Your task to perform on an android device: Open Wikipedia Image 0: 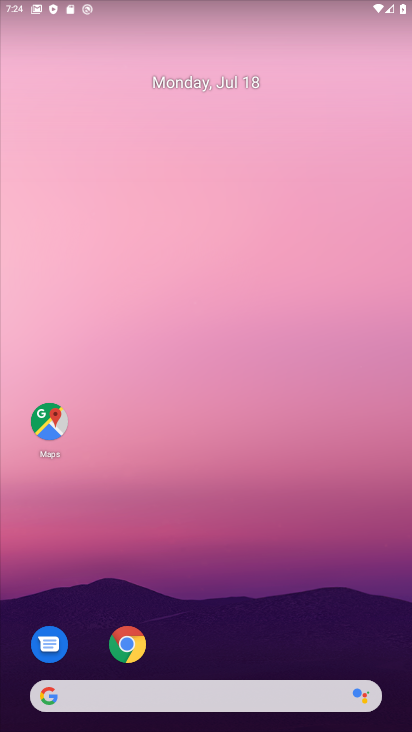
Step 0: click (126, 643)
Your task to perform on an android device: Open Wikipedia Image 1: 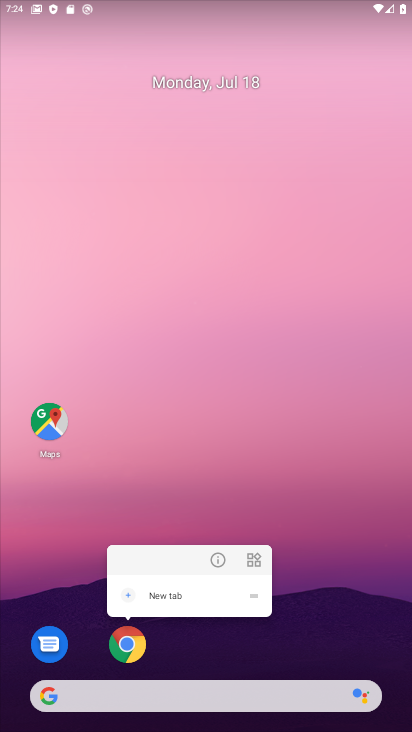
Step 1: click (128, 641)
Your task to perform on an android device: Open Wikipedia Image 2: 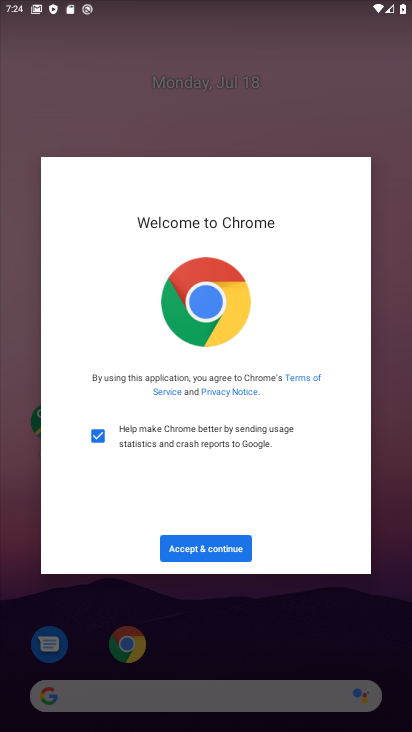
Step 2: click (202, 554)
Your task to perform on an android device: Open Wikipedia Image 3: 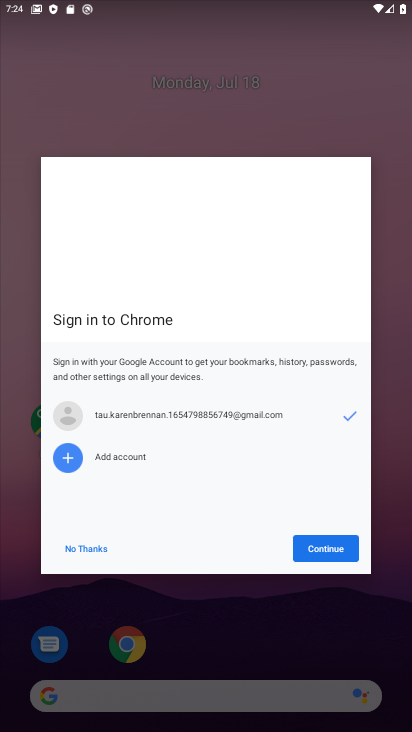
Step 3: click (324, 554)
Your task to perform on an android device: Open Wikipedia Image 4: 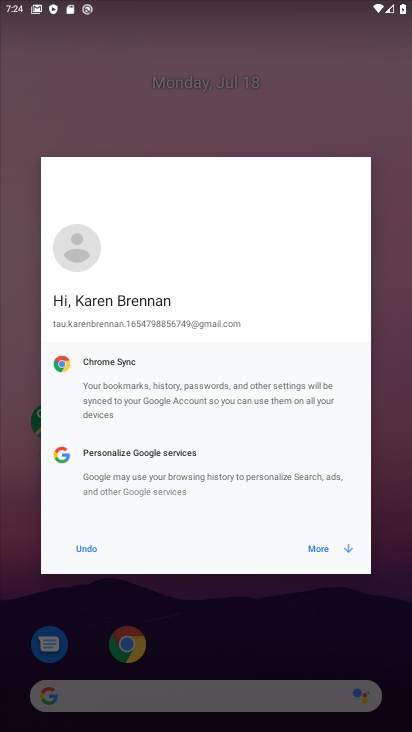
Step 4: click (328, 552)
Your task to perform on an android device: Open Wikipedia Image 5: 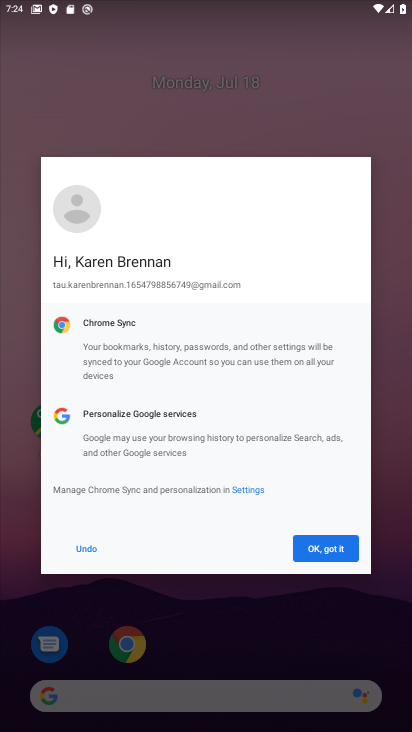
Step 5: click (329, 551)
Your task to perform on an android device: Open Wikipedia Image 6: 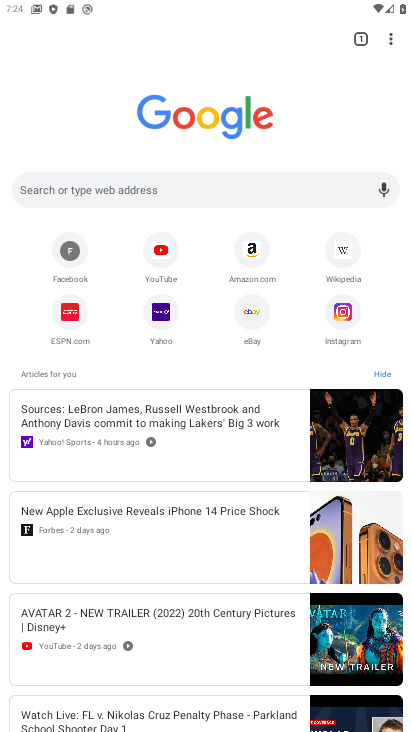
Step 6: click (352, 263)
Your task to perform on an android device: Open Wikipedia Image 7: 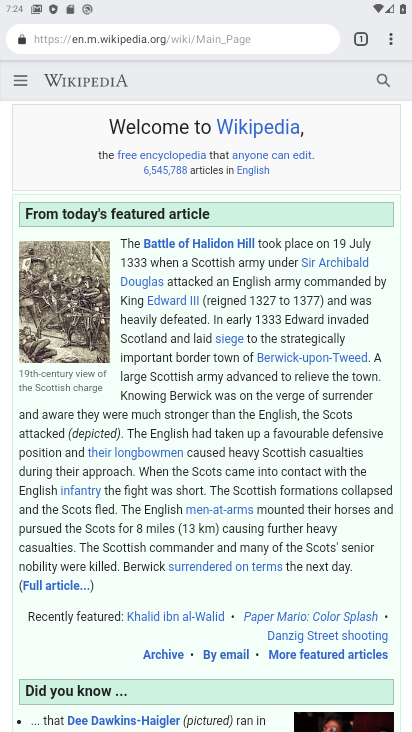
Step 7: task complete